Your task to perform on an android device: Open the web browser Image 0: 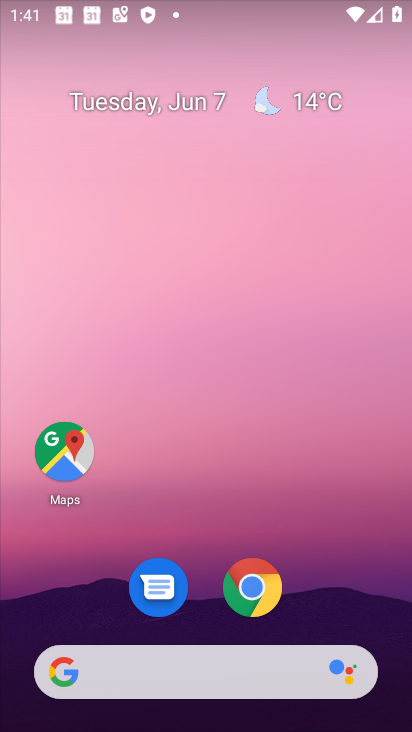
Step 0: drag from (252, 663) to (271, 154)
Your task to perform on an android device: Open the web browser Image 1: 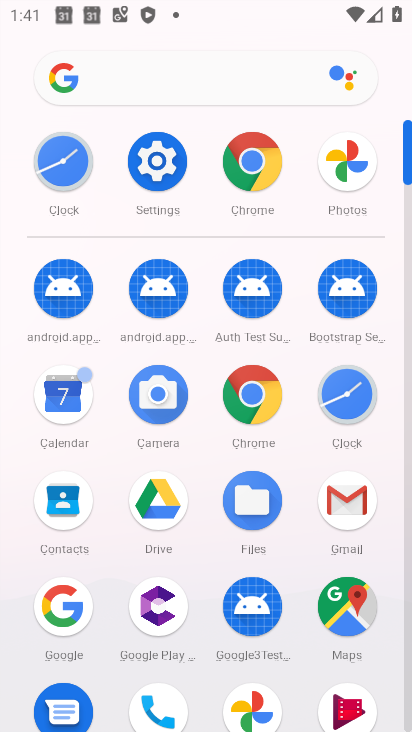
Step 1: click (268, 411)
Your task to perform on an android device: Open the web browser Image 2: 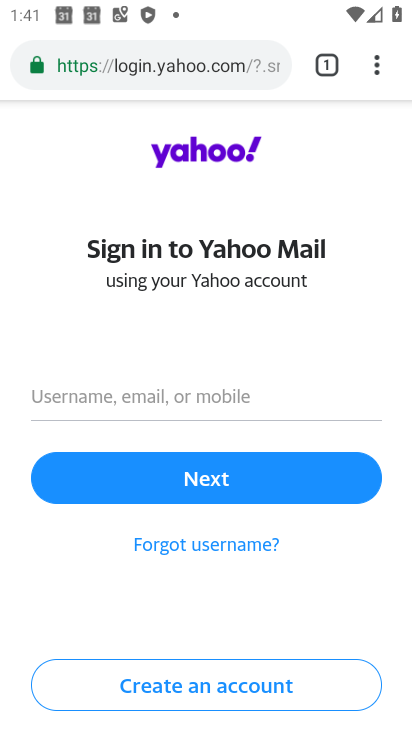
Step 2: task complete